Your task to perform on an android device: change alarm snooze length Image 0: 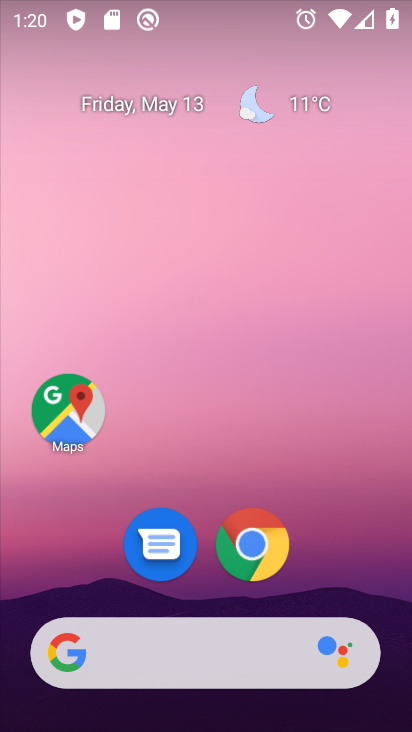
Step 0: drag from (209, 559) to (227, 230)
Your task to perform on an android device: change alarm snooze length Image 1: 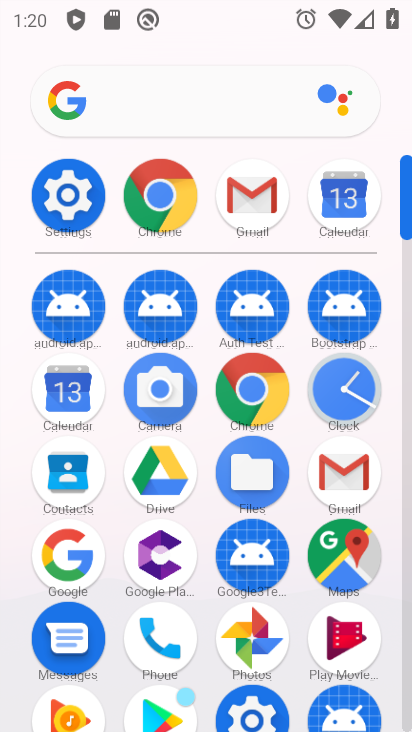
Step 1: click (339, 386)
Your task to perform on an android device: change alarm snooze length Image 2: 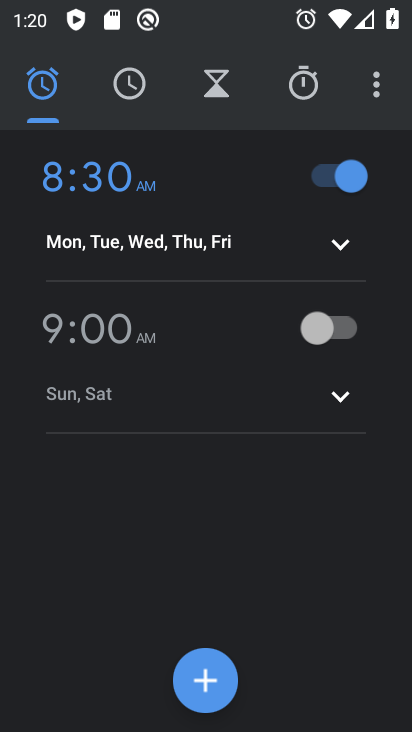
Step 2: click (373, 93)
Your task to perform on an android device: change alarm snooze length Image 3: 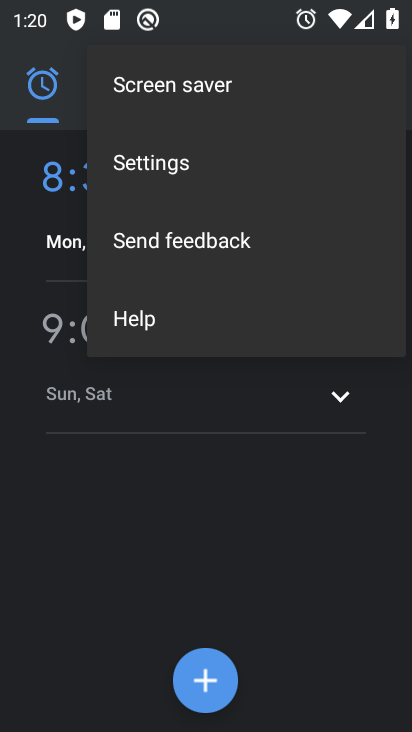
Step 3: click (158, 168)
Your task to perform on an android device: change alarm snooze length Image 4: 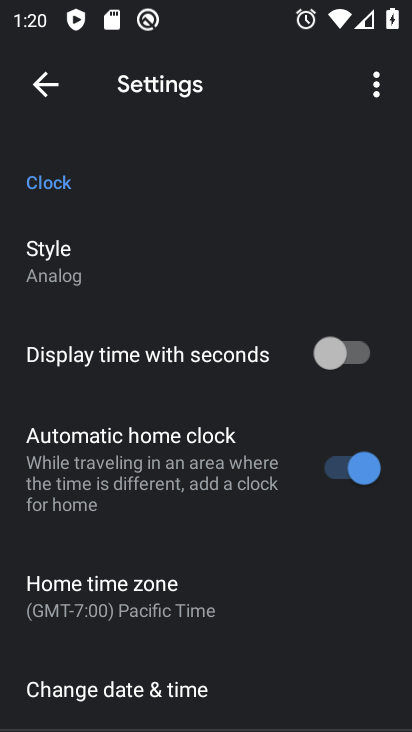
Step 4: drag from (165, 631) to (275, 256)
Your task to perform on an android device: change alarm snooze length Image 5: 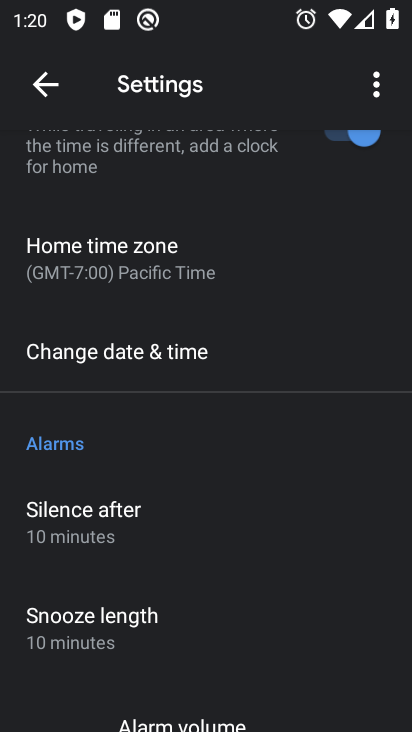
Step 5: click (110, 633)
Your task to perform on an android device: change alarm snooze length Image 6: 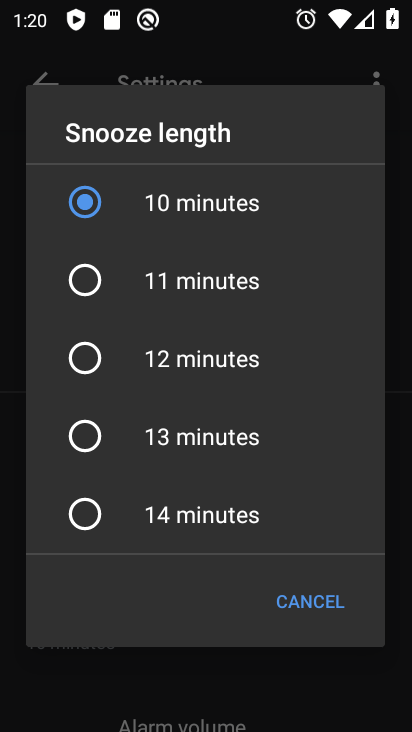
Step 6: click (226, 281)
Your task to perform on an android device: change alarm snooze length Image 7: 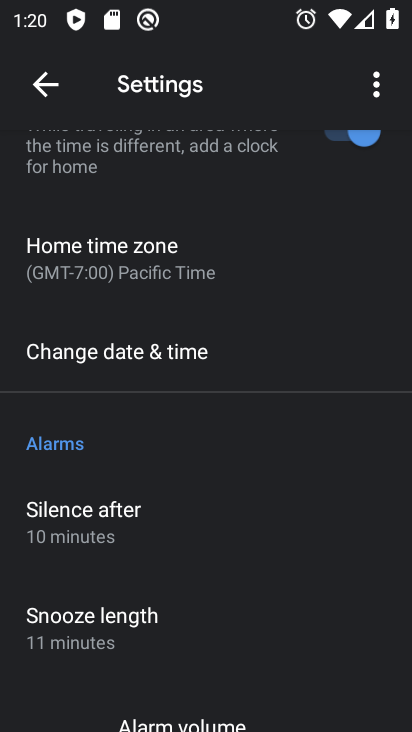
Step 7: task complete